Your task to perform on an android device: snooze an email in the gmail app Image 0: 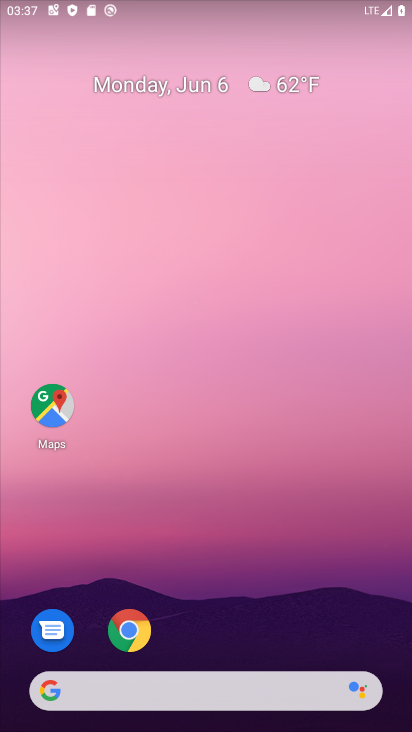
Step 0: drag from (297, 639) to (308, 9)
Your task to perform on an android device: snooze an email in the gmail app Image 1: 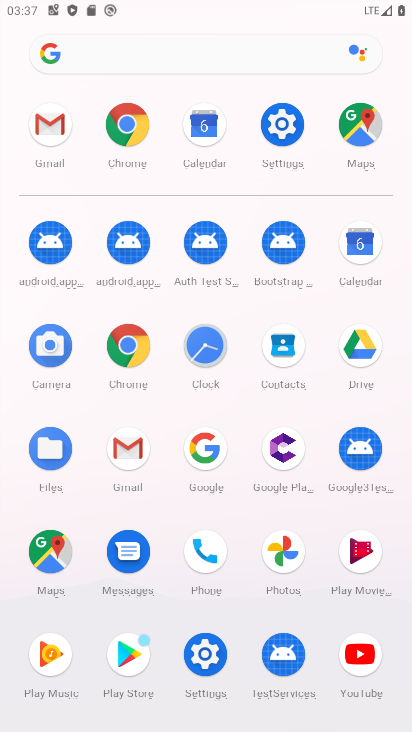
Step 1: click (54, 109)
Your task to perform on an android device: snooze an email in the gmail app Image 2: 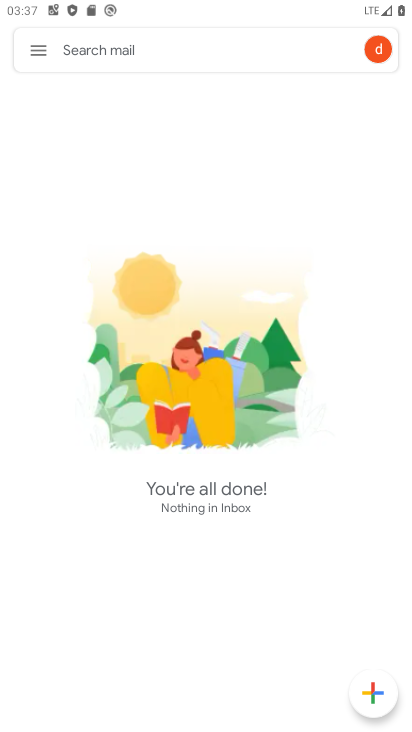
Step 2: task complete